Your task to perform on an android device: turn on sleep mode Image 0: 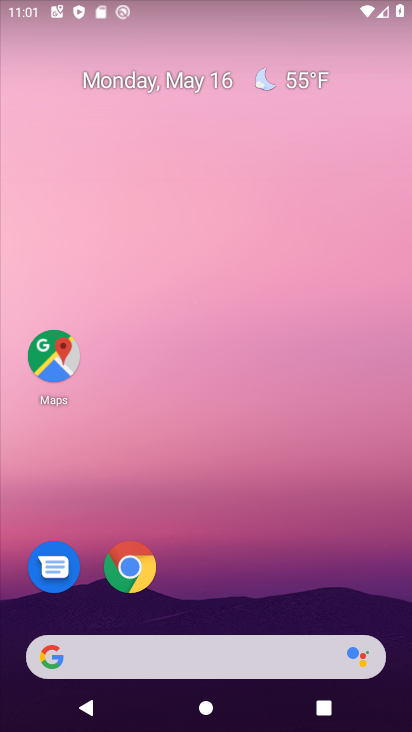
Step 0: drag from (188, 625) to (261, 158)
Your task to perform on an android device: turn on sleep mode Image 1: 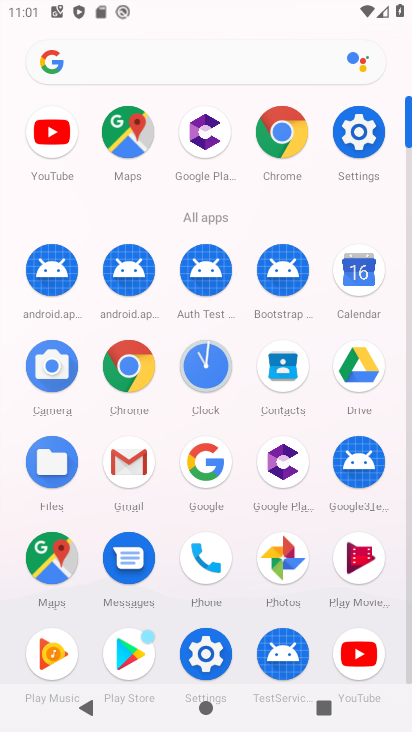
Step 1: click (209, 665)
Your task to perform on an android device: turn on sleep mode Image 2: 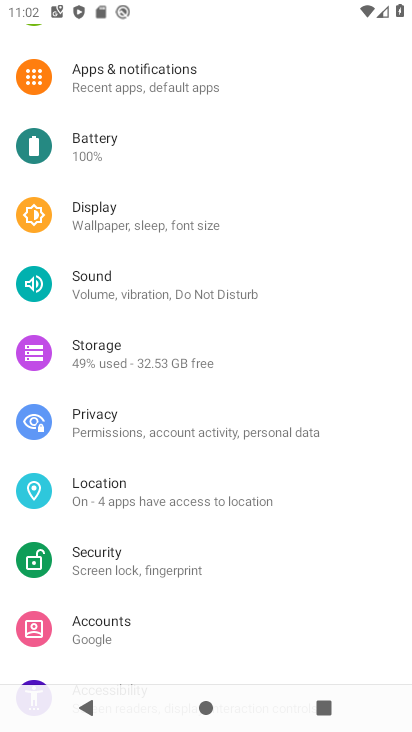
Step 2: click (145, 242)
Your task to perform on an android device: turn on sleep mode Image 3: 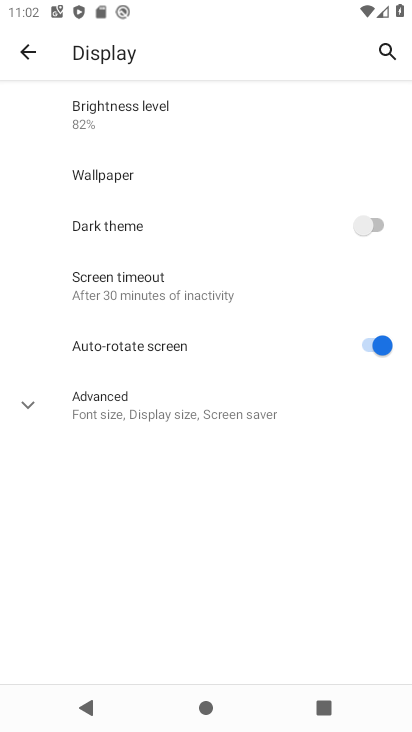
Step 3: click (227, 414)
Your task to perform on an android device: turn on sleep mode Image 4: 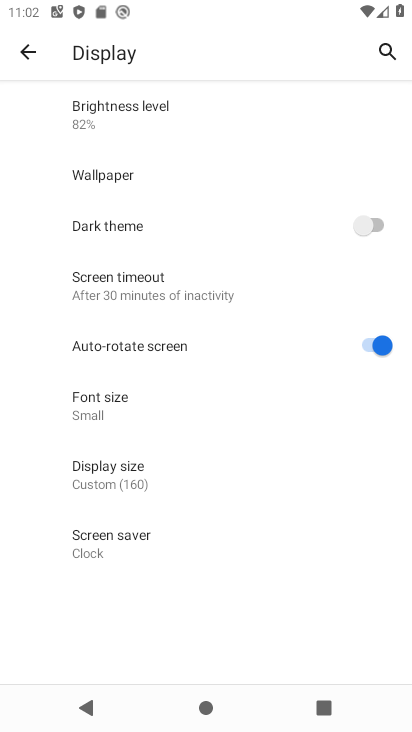
Step 4: task complete